Your task to perform on an android device: empty trash in the gmail app Image 0: 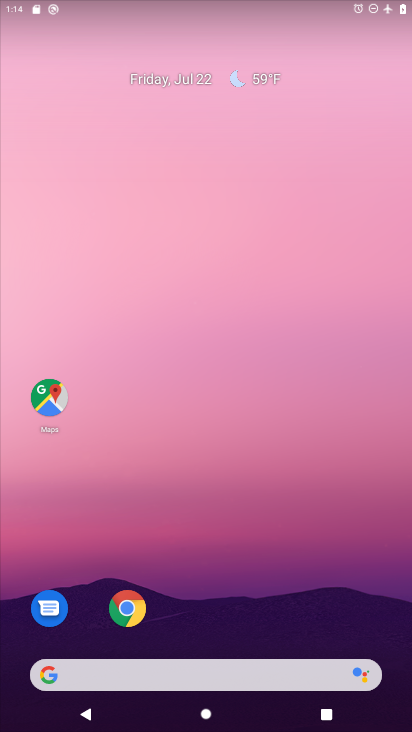
Step 0: drag from (383, 624) to (221, 62)
Your task to perform on an android device: empty trash in the gmail app Image 1: 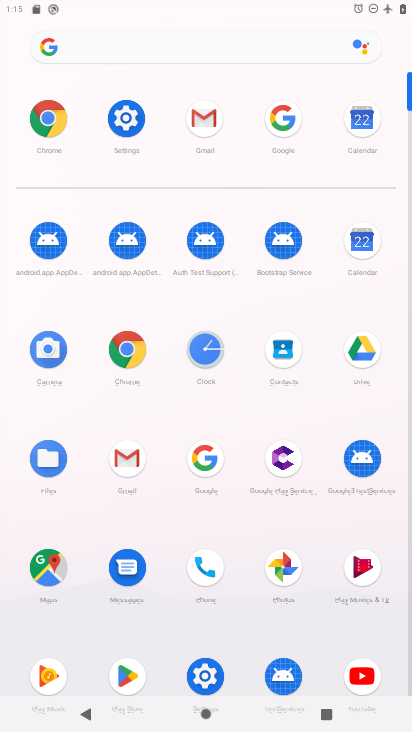
Step 1: click (137, 474)
Your task to perform on an android device: empty trash in the gmail app Image 2: 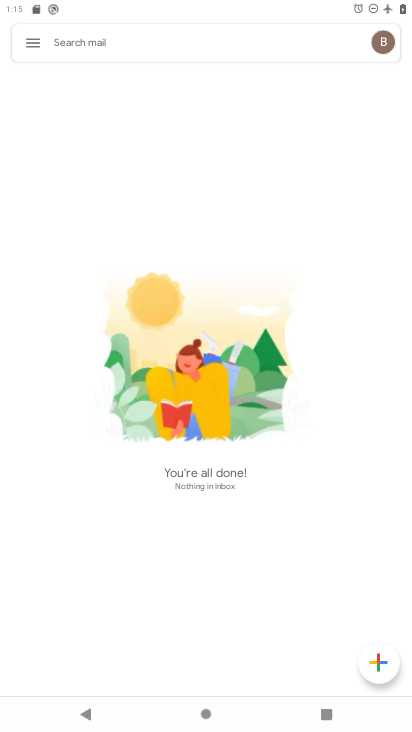
Step 2: click (29, 43)
Your task to perform on an android device: empty trash in the gmail app Image 3: 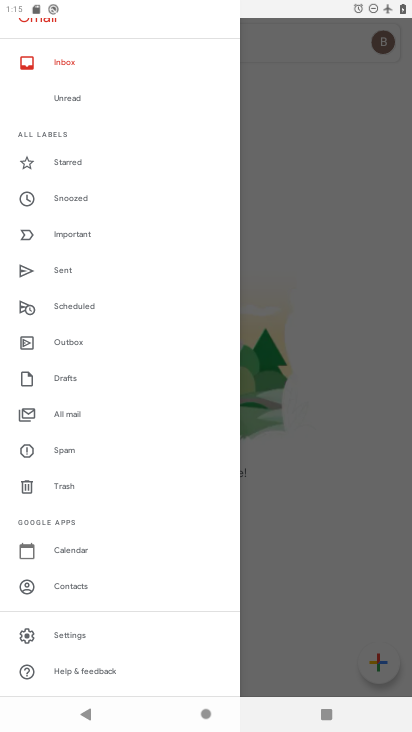
Step 3: click (73, 485)
Your task to perform on an android device: empty trash in the gmail app Image 4: 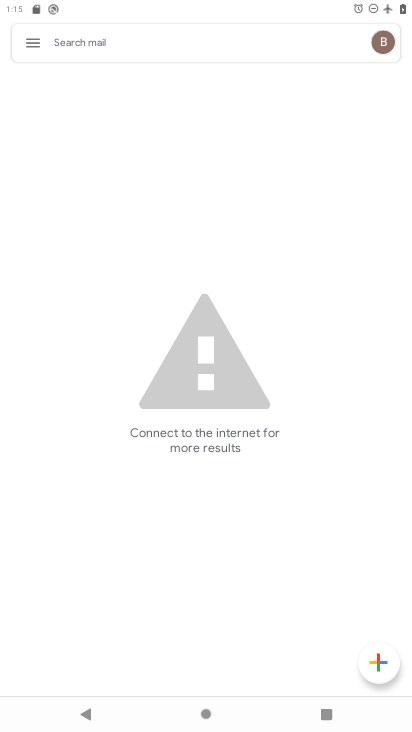
Step 4: task complete